Your task to perform on an android device: toggle improve location accuracy Image 0: 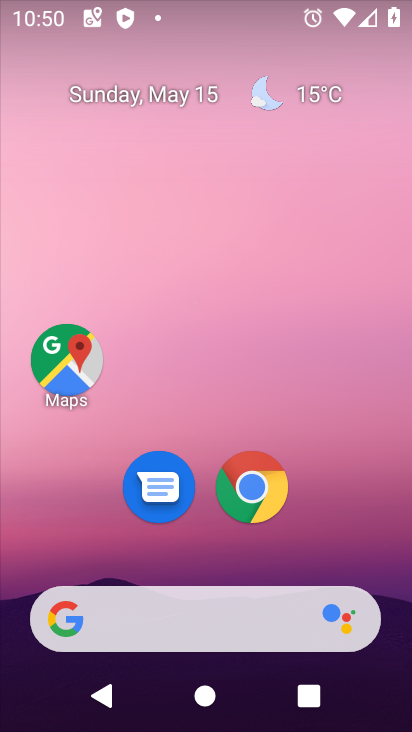
Step 0: drag from (395, 622) to (327, 43)
Your task to perform on an android device: toggle improve location accuracy Image 1: 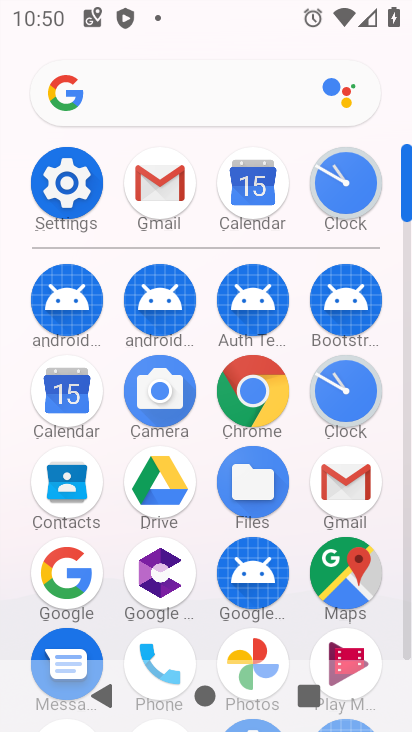
Step 1: click (410, 639)
Your task to perform on an android device: toggle improve location accuracy Image 2: 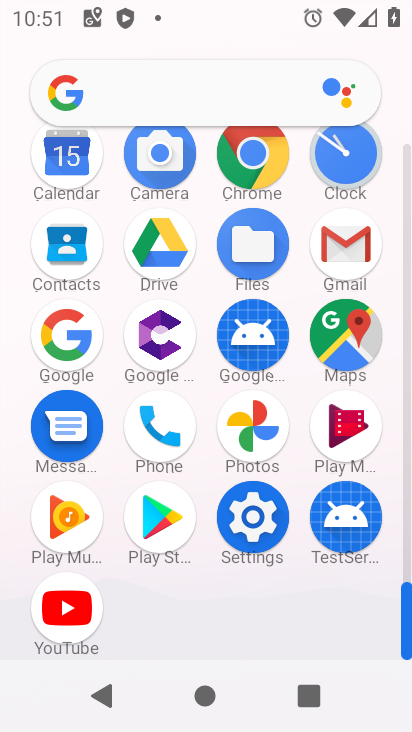
Step 2: click (256, 516)
Your task to perform on an android device: toggle improve location accuracy Image 3: 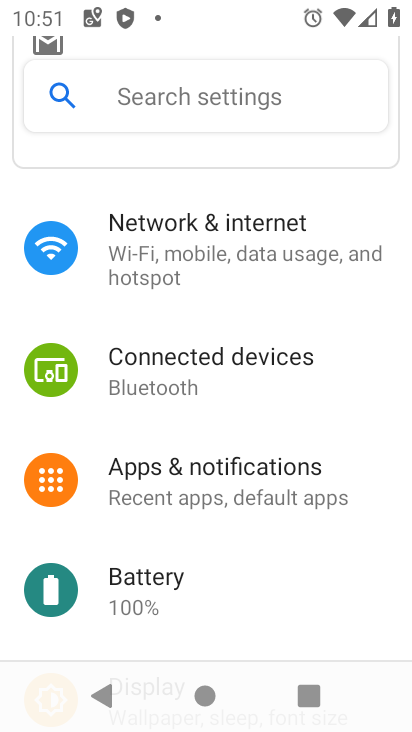
Step 3: drag from (324, 553) to (315, 264)
Your task to perform on an android device: toggle improve location accuracy Image 4: 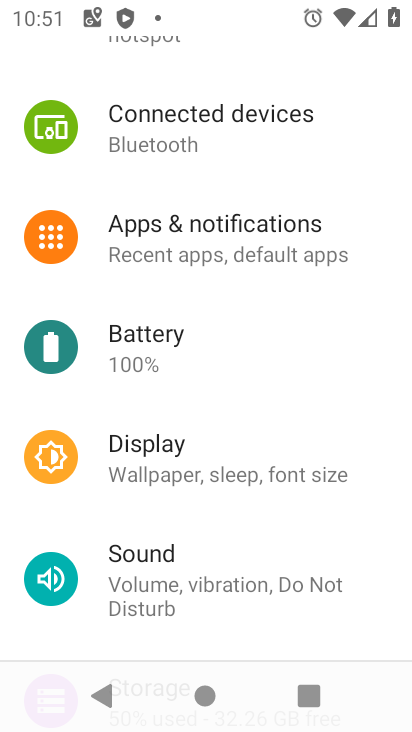
Step 4: drag from (344, 558) to (326, 157)
Your task to perform on an android device: toggle improve location accuracy Image 5: 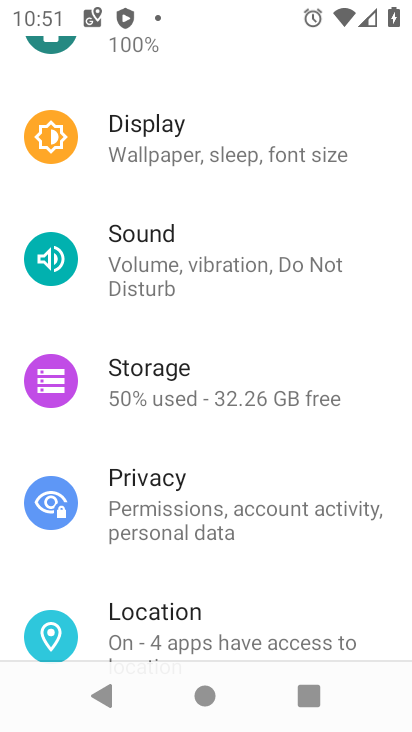
Step 5: drag from (339, 572) to (351, 194)
Your task to perform on an android device: toggle improve location accuracy Image 6: 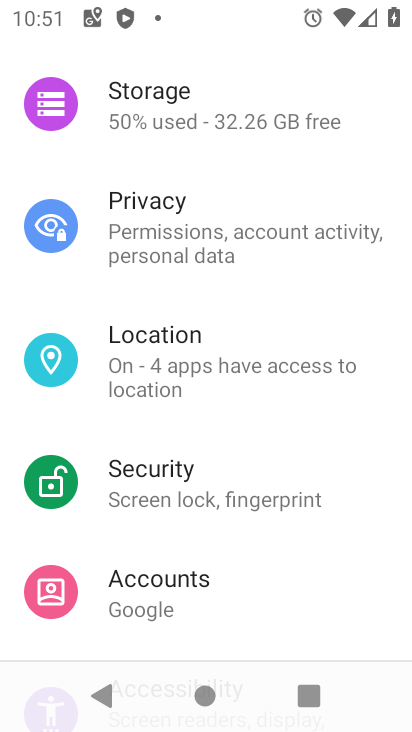
Step 6: click (171, 370)
Your task to perform on an android device: toggle improve location accuracy Image 7: 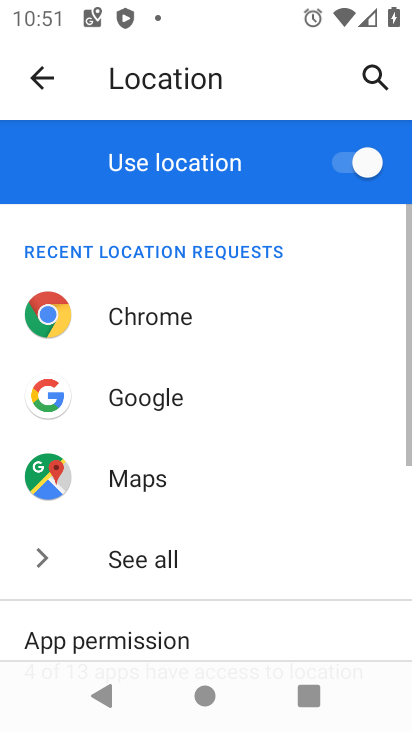
Step 7: drag from (267, 606) to (282, 187)
Your task to perform on an android device: toggle improve location accuracy Image 8: 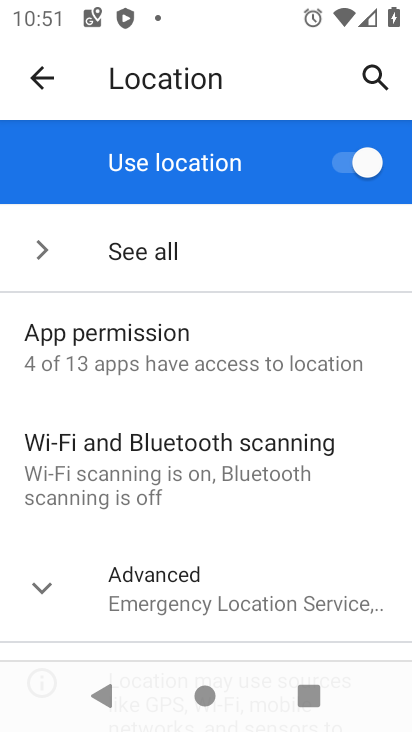
Step 8: click (52, 585)
Your task to perform on an android device: toggle improve location accuracy Image 9: 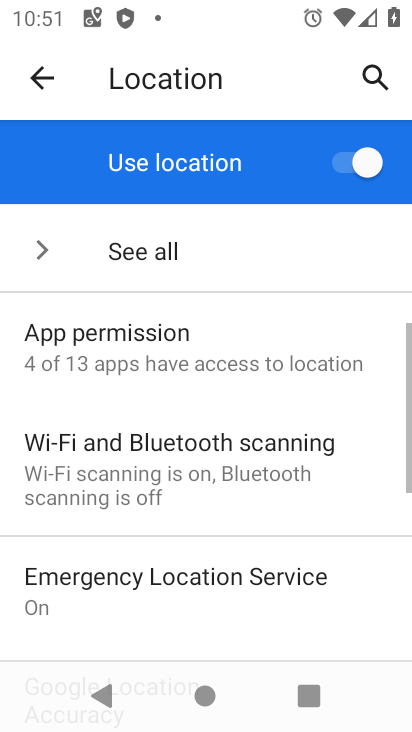
Step 9: drag from (274, 629) to (310, 248)
Your task to perform on an android device: toggle improve location accuracy Image 10: 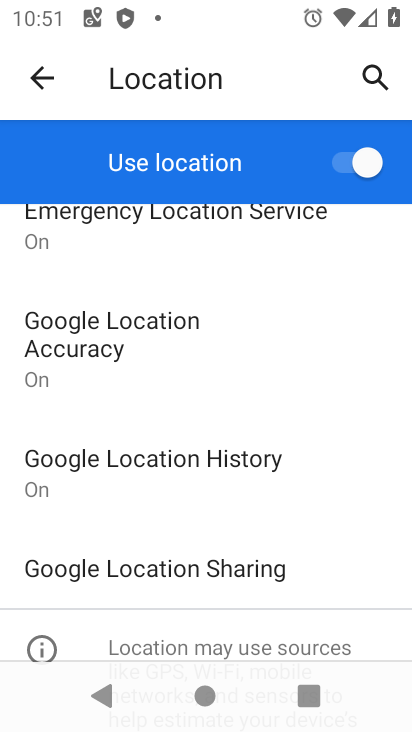
Step 10: click (53, 344)
Your task to perform on an android device: toggle improve location accuracy Image 11: 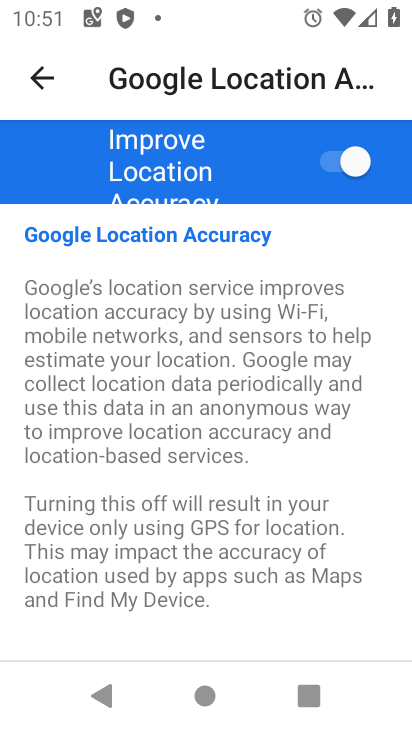
Step 11: click (331, 159)
Your task to perform on an android device: toggle improve location accuracy Image 12: 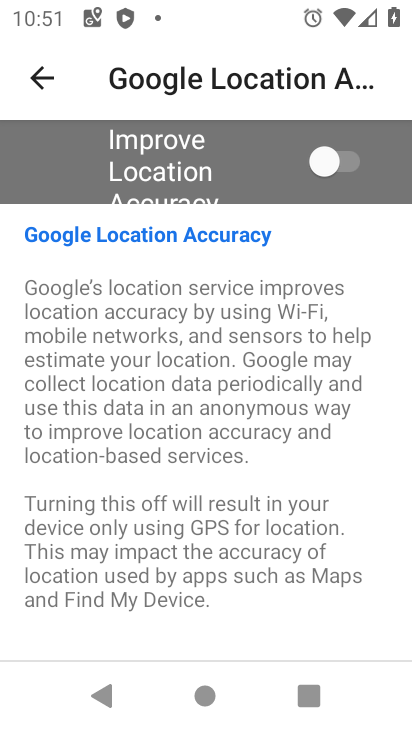
Step 12: task complete